Your task to perform on an android device: Go to internet settings Image 0: 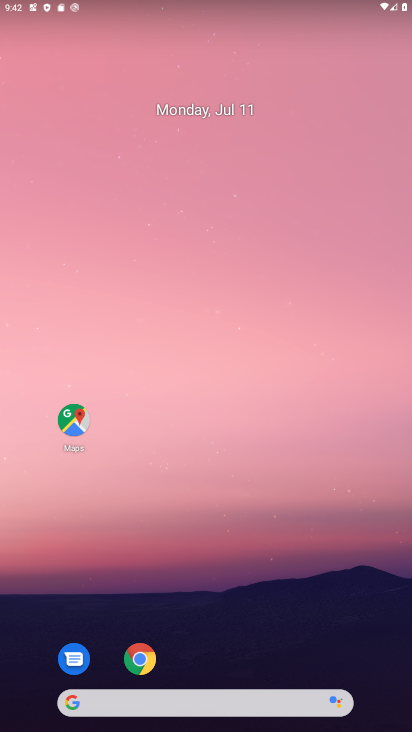
Step 0: drag from (301, 486) to (308, 6)
Your task to perform on an android device: Go to internet settings Image 1: 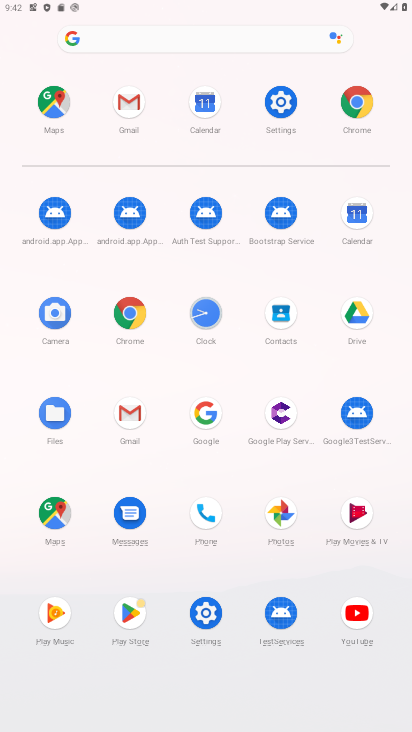
Step 1: click (301, 107)
Your task to perform on an android device: Go to internet settings Image 2: 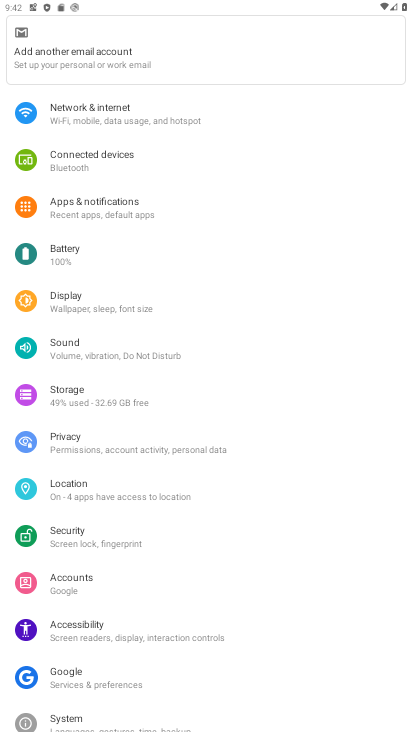
Step 2: click (96, 120)
Your task to perform on an android device: Go to internet settings Image 3: 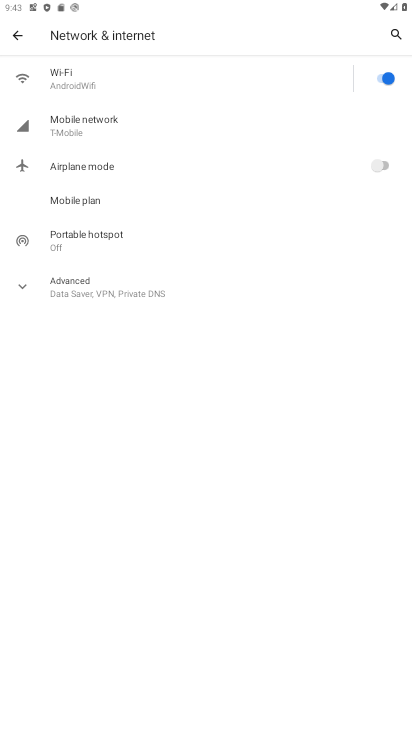
Step 3: click (118, 126)
Your task to perform on an android device: Go to internet settings Image 4: 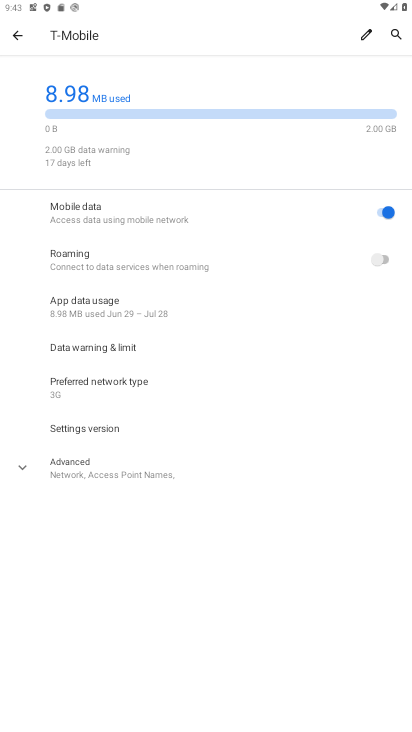
Step 4: task complete